Your task to perform on an android device: Empty the shopping cart on newegg. Search for lg ultragear on newegg, select the first entry, add it to the cart, then select checkout. Image 0: 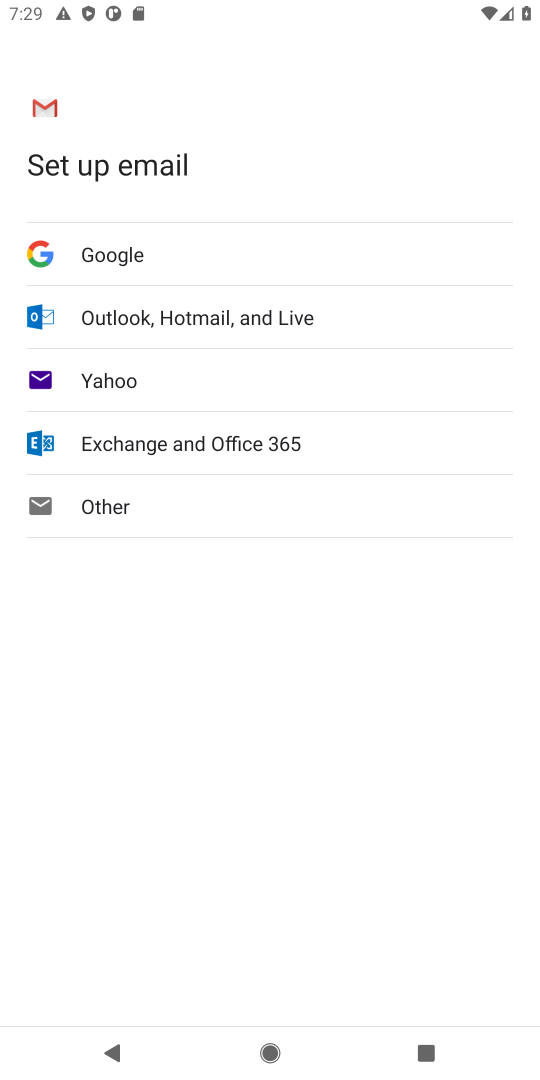
Step 0: press home button
Your task to perform on an android device: Empty the shopping cart on newegg. Search for lg ultragear on newegg, select the first entry, add it to the cart, then select checkout. Image 1: 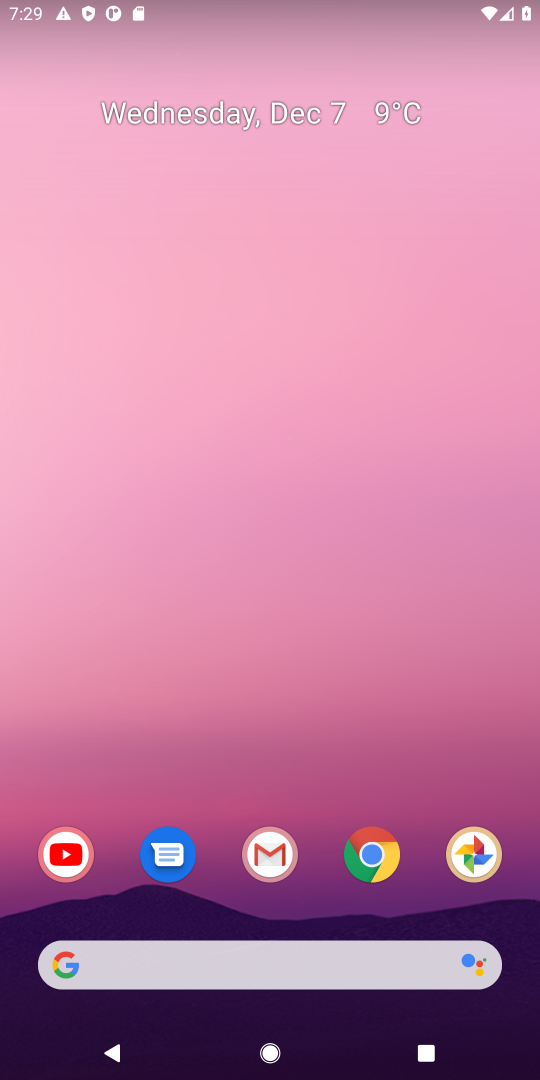
Step 1: click (278, 967)
Your task to perform on an android device: Empty the shopping cart on newegg. Search for lg ultragear on newegg, select the first entry, add it to the cart, then select checkout. Image 2: 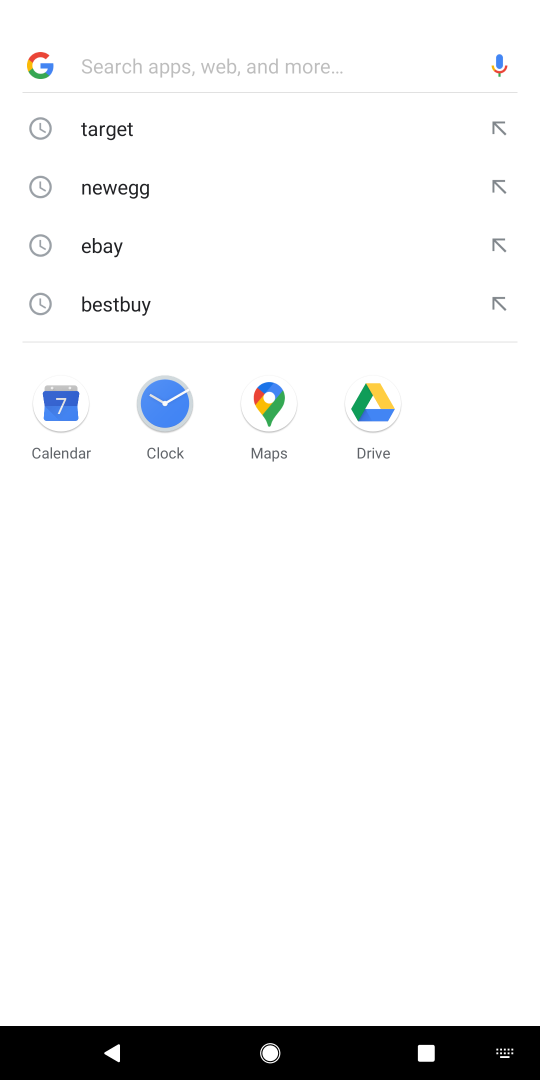
Step 2: type "newegg"
Your task to perform on an android device: Empty the shopping cart on newegg. Search for lg ultragear on newegg, select the first entry, add it to the cart, then select checkout. Image 3: 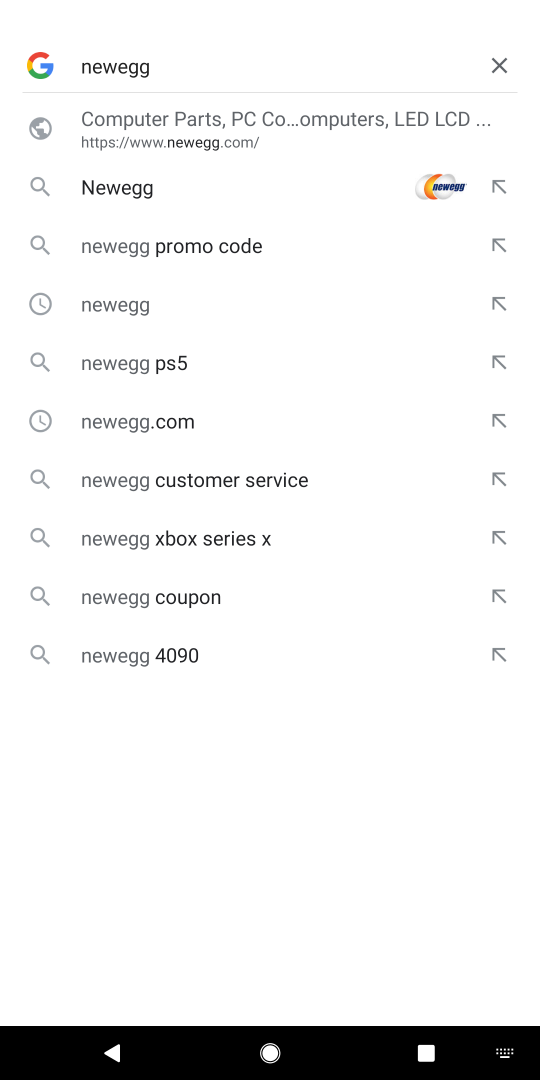
Step 3: click (251, 201)
Your task to perform on an android device: Empty the shopping cart on newegg. Search for lg ultragear on newegg, select the first entry, add it to the cart, then select checkout. Image 4: 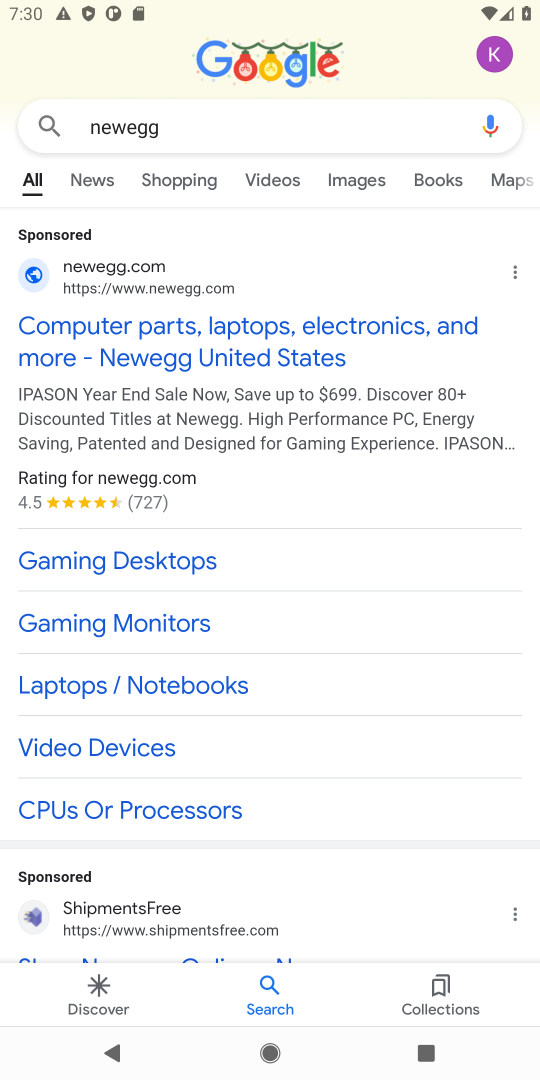
Step 4: click (209, 333)
Your task to perform on an android device: Empty the shopping cart on newegg. Search for lg ultragear on newegg, select the first entry, add it to the cart, then select checkout. Image 5: 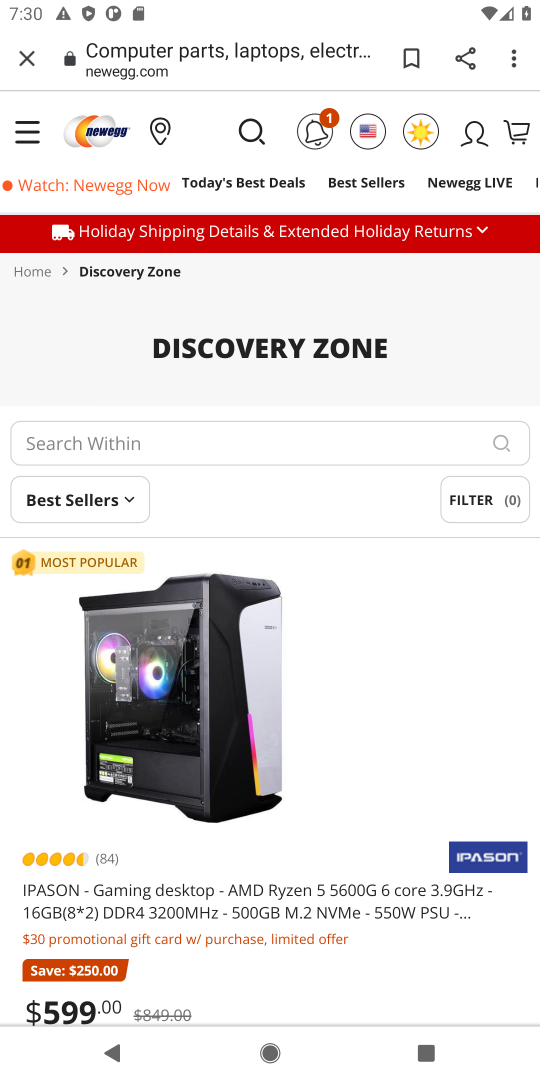
Step 5: drag from (304, 854) to (291, 536)
Your task to perform on an android device: Empty the shopping cart on newegg. Search for lg ultragear on newegg, select the first entry, add it to the cart, then select checkout. Image 6: 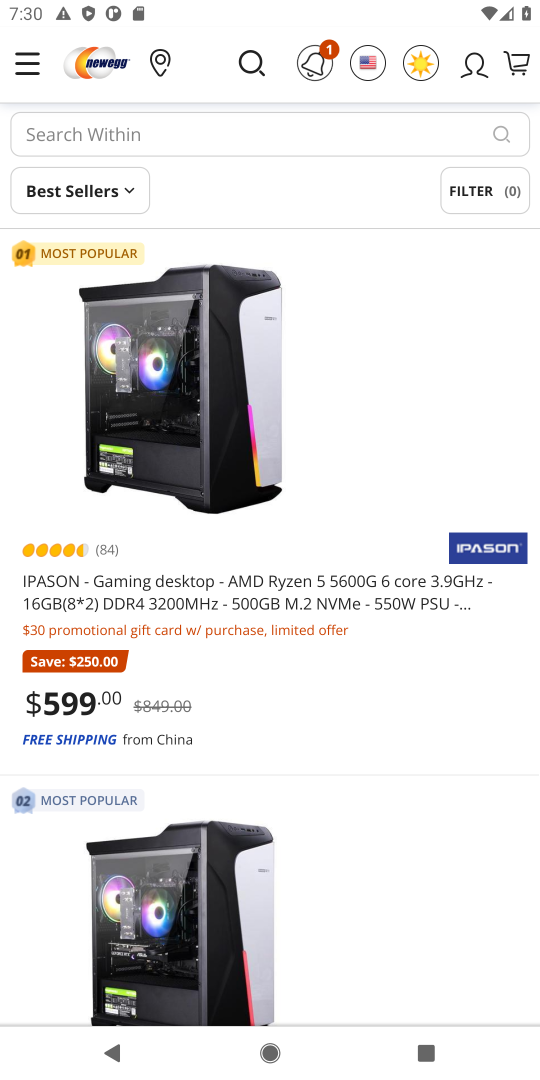
Step 6: click (189, 516)
Your task to perform on an android device: Empty the shopping cart on newegg. Search for lg ultragear on newegg, select the first entry, add it to the cart, then select checkout. Image 7: 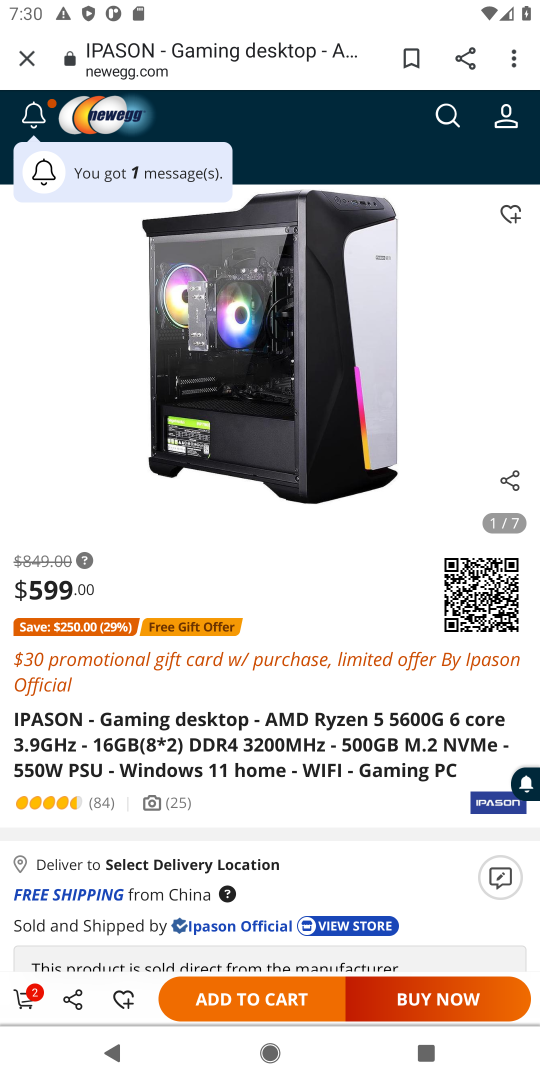
Step 7: click (242, 997)
Your task to perform on an android device: Empty the shopping cart on newegg. Search for lg ultragear on newegg, select the first entry, add it to the cart, then select checkout. Image 8: 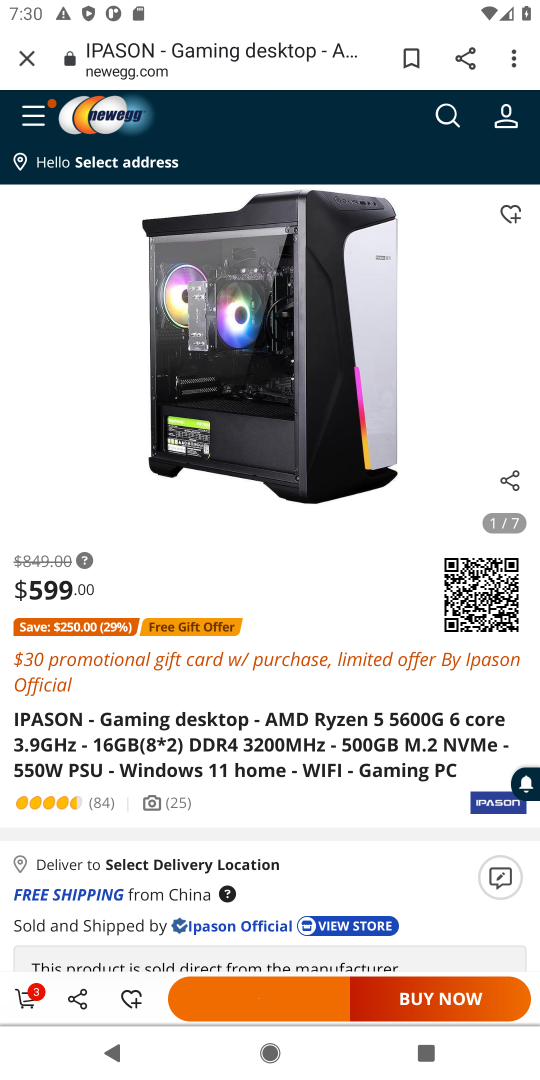
Step 8: task complete